Your task to perform on an android device: Turn on the flashlight Image 0: 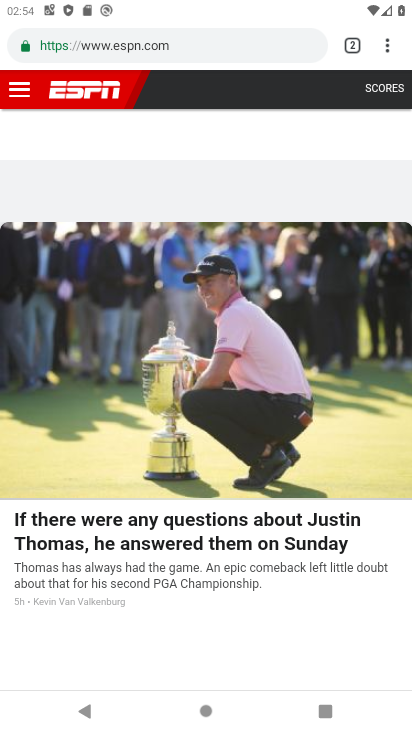
Step 0: press home button
Your task to perform on an android device: Turn on the flashlight Image 1: 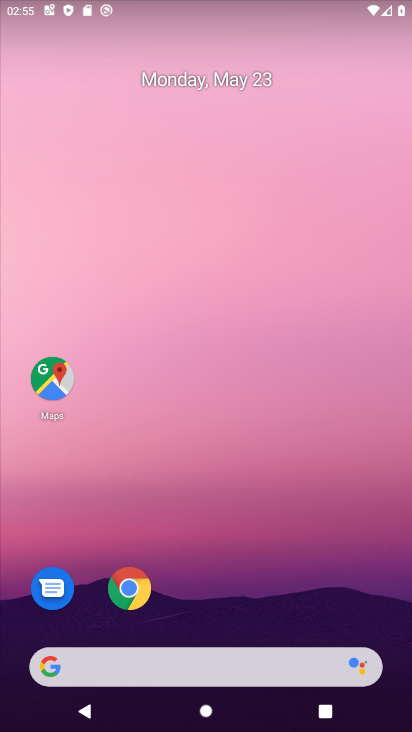
Step 1: drag from (227, 726) to (196, 112)
Your task to perform on an android device: Turn on the flashlight Image 2: 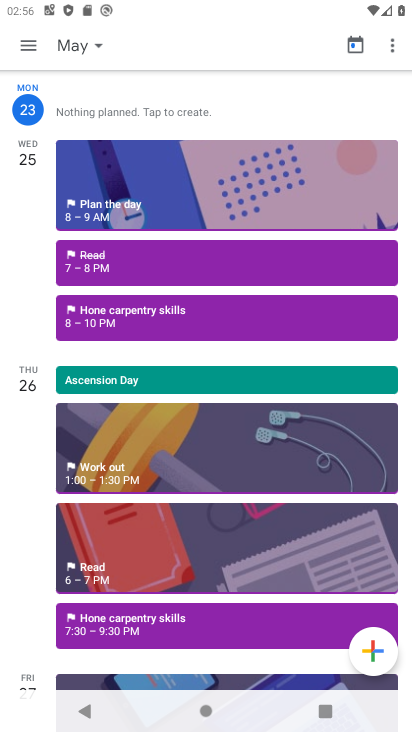
Step 2: press home button
Your task to perform on an android device: Turn on the flashlight Image 3: 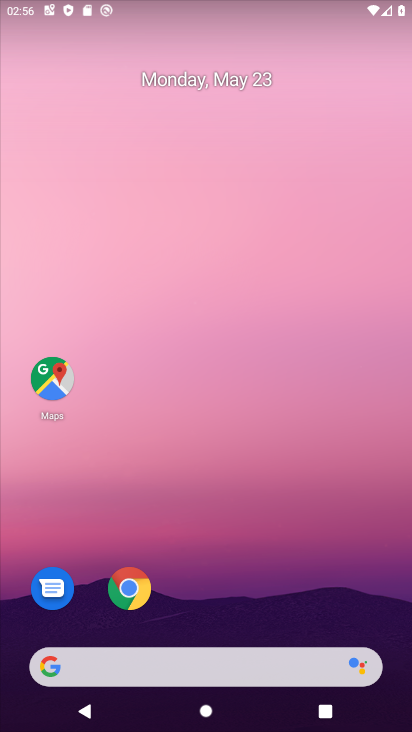
Step 3: drag from (221, 719) to (232, 222)
Your task to perform on an android device: Turn on the flashlight Image 4: 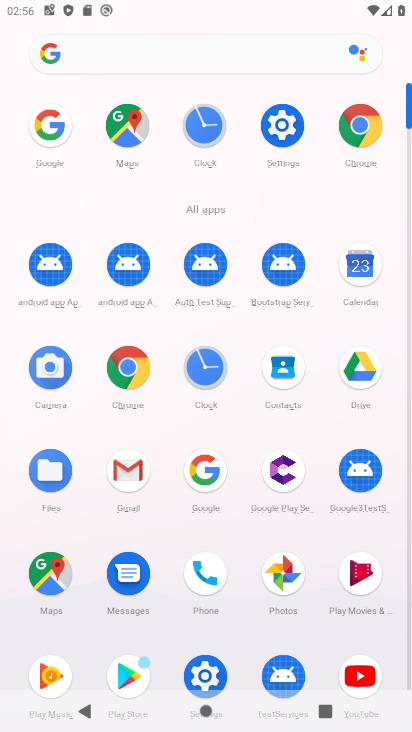
Step 4: click (282, 99)
Your task to perform on an android device: Turn on the flashlight Image 5: 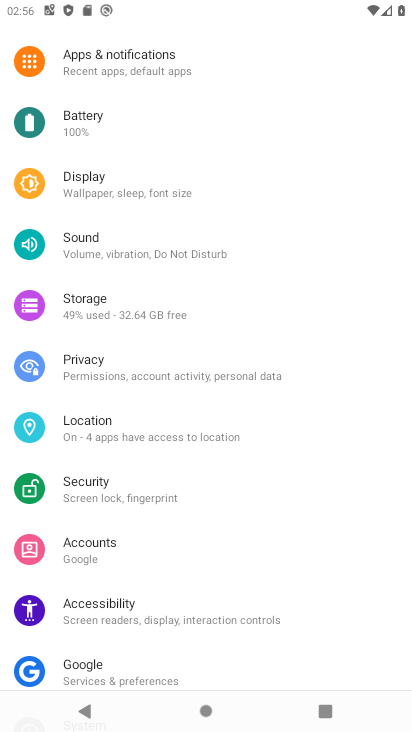
Step 5: task complete